Your task to perform on an android device: check battery use Image 0: 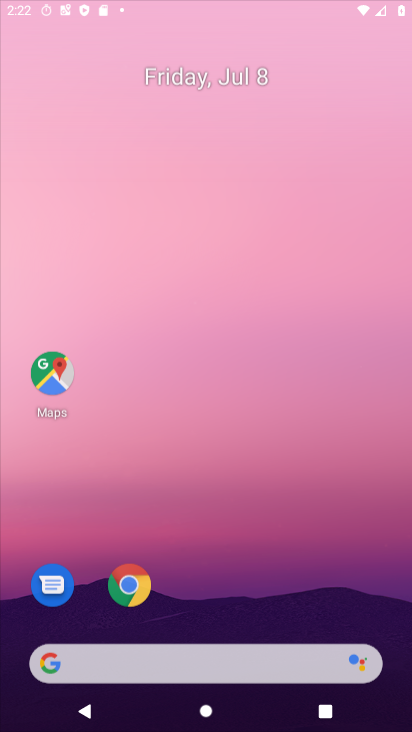
Step 0: press home button
Your task to perform on an android device: check battery use Image 1: 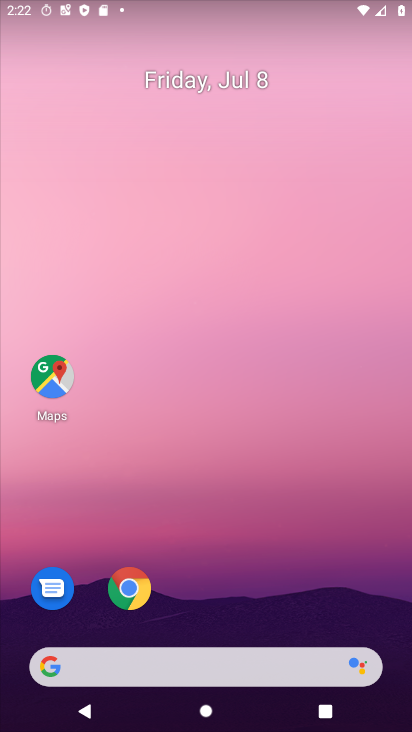
Step 1: press home button
Your task to perform on an android device: check battery use Image 2: 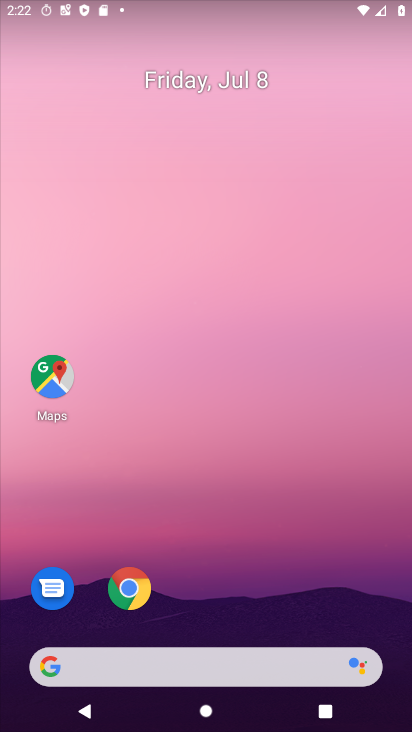
Step 2: drag from (240, 580) to (275, 1)
Your task to perform on an android device: check battery use Image 3: 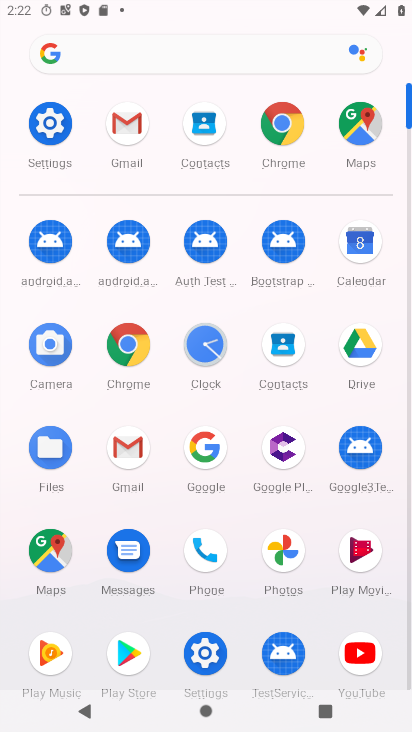
Step 3: click (46, 132)
Your task to perform on an android device: check battery use Image 4: 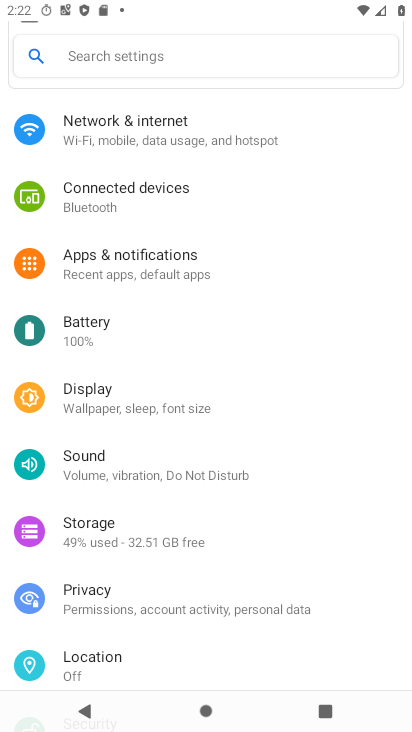
Step 4: drag from (326, 570) to (370, 144)
Your task to perform on an android device: check battery use Image 5: 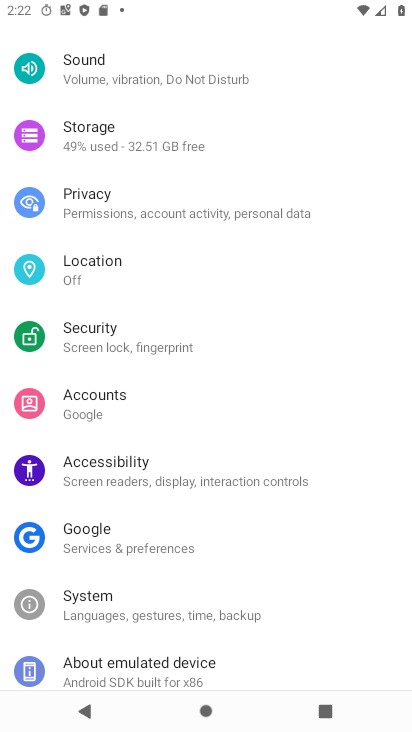
Step 5: drag from (338, 136) to (318, 633)
Your task to perform on an android device: check battery use Image 6: 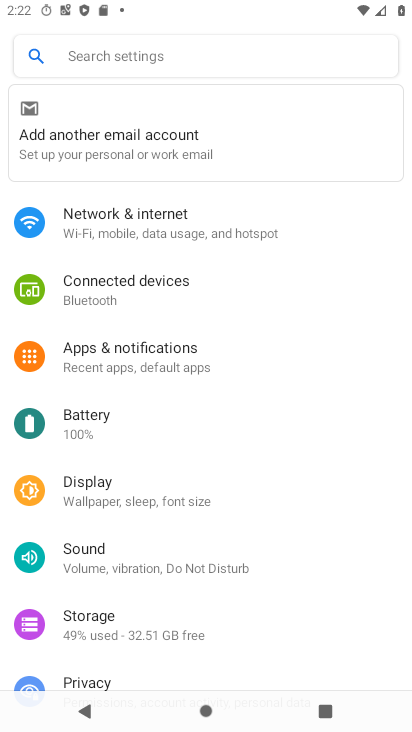
Step 6: click (78, 423)
Your task to perform on an android device: check battery use Image 7: 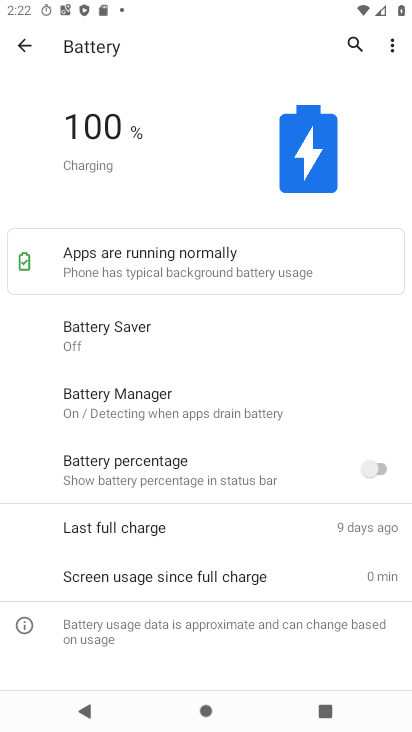
Step 7: click (396, 46)
Your task to perform on an android device: check battery use Image 8: 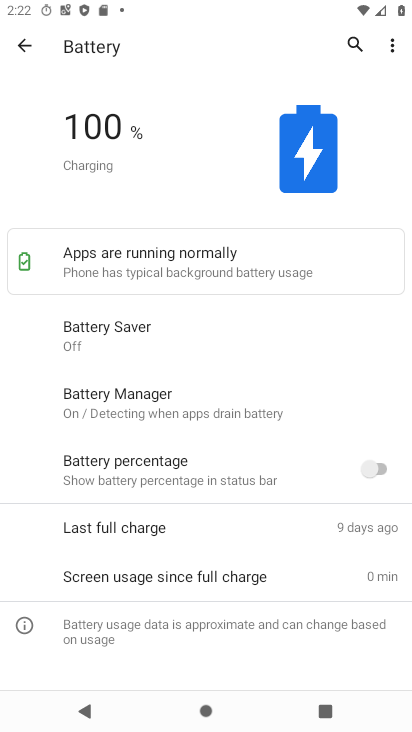
Step 8: click (389, 42)
Your task to perform on an android device: check battery use Image 9: 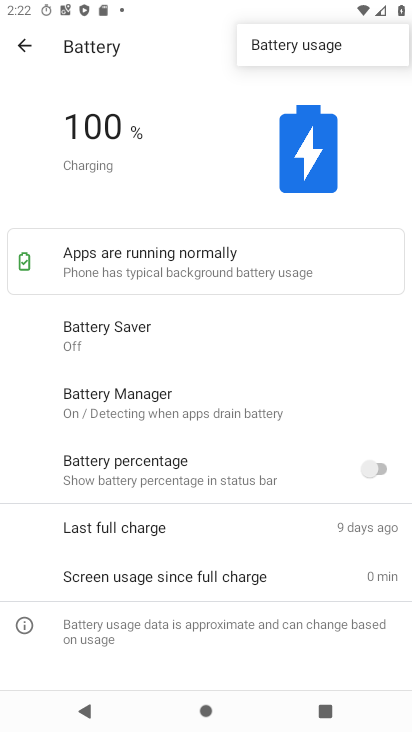
Step 9: click (295, 45)
Your task to perform on an android device: check battery use Image 10: 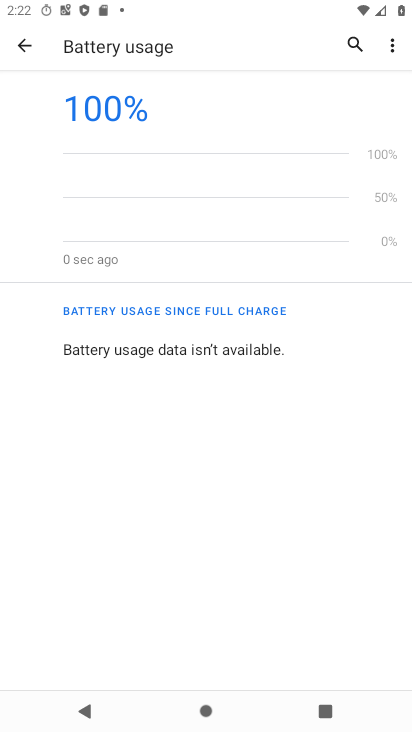
Step 10: task complete